Your task to perform on an android device: turn off notifications in google photos Image 0: 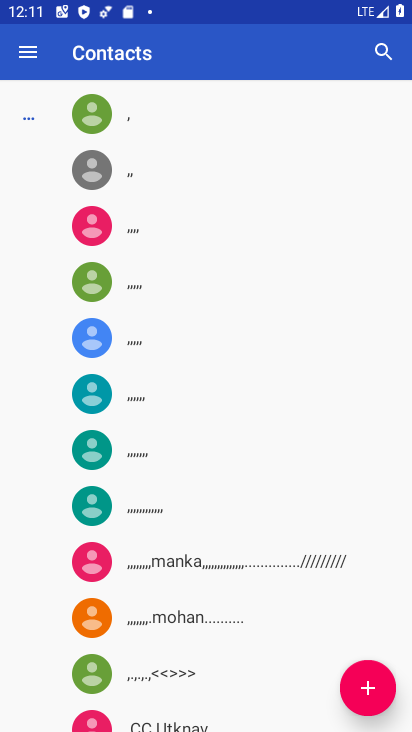
Step 0: press home button
Your task to perform on an android device: turn off notifications in google photos Image 1: 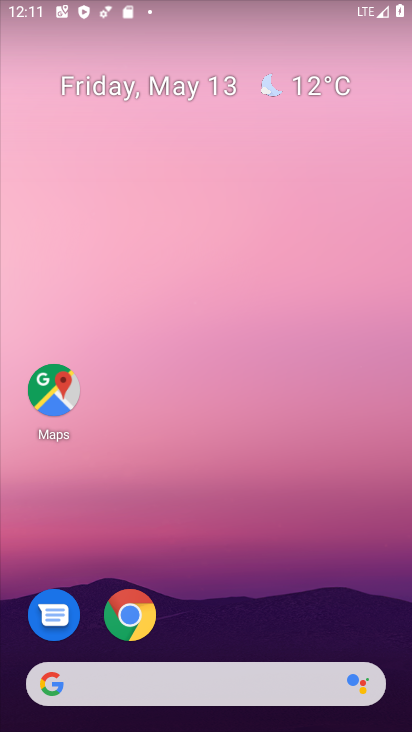
Step 1: drag from (220, 604) to (214, 162)
Your task to perform on an android device: turn off notifications in google photos Image 2: 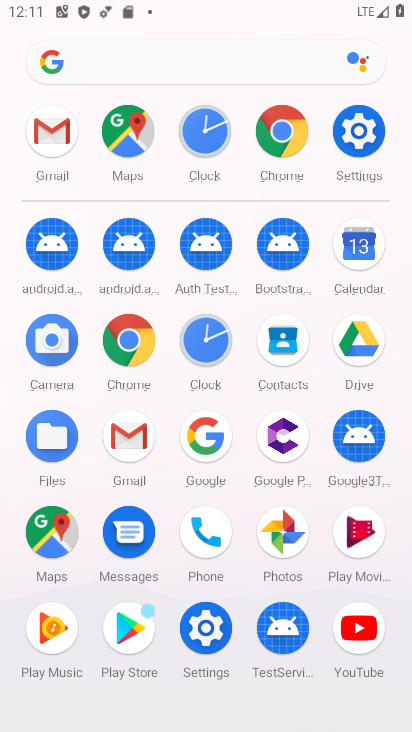
Step 2: click (288, 530)
Your task to perform on an android device: turn off notifications in google photos Image 3: 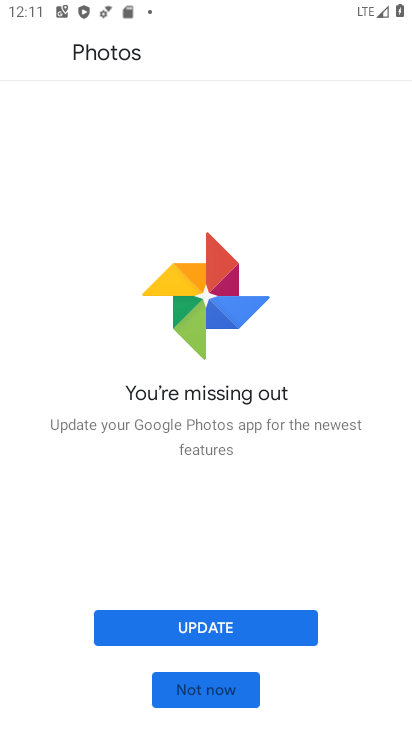
Step 3: click (219, 677)
Your task to perform on an android device: turn off notifications in google photos Image 4: 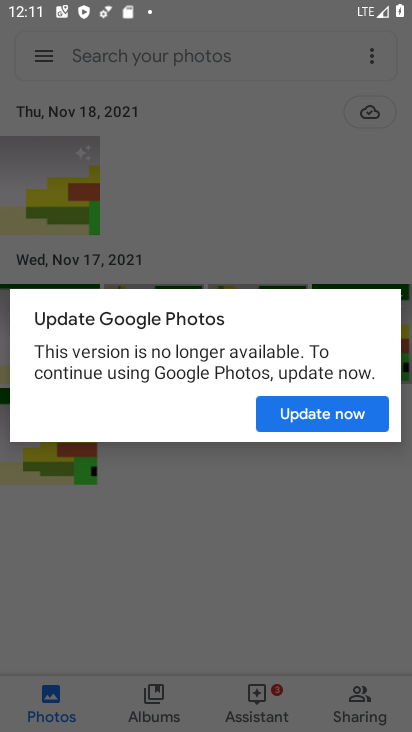
Step 4: click (273, 405)
Your task to perform on an android device: turn off notifications in google photos Image 5: 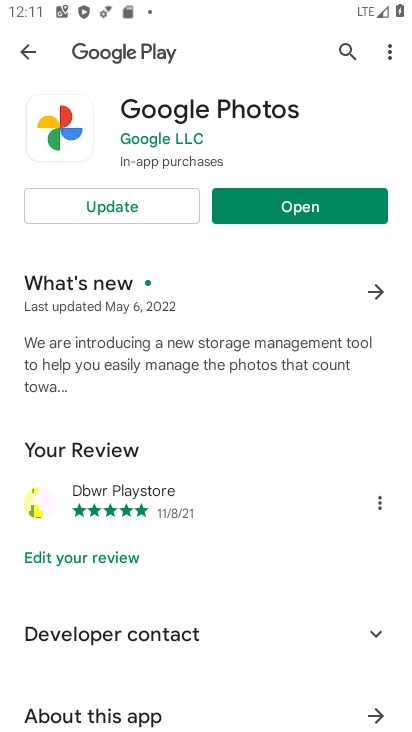
Step 5: click (228, 204)
Your task to perform on an android device: turn off notifications in google photos Image 6: 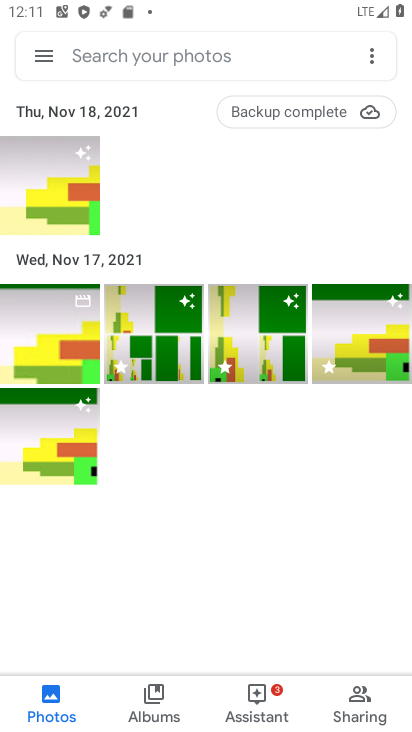
Step 6: click (40, 31)
Your task to perform on an android device: turn off notifications in google photos Image 7: 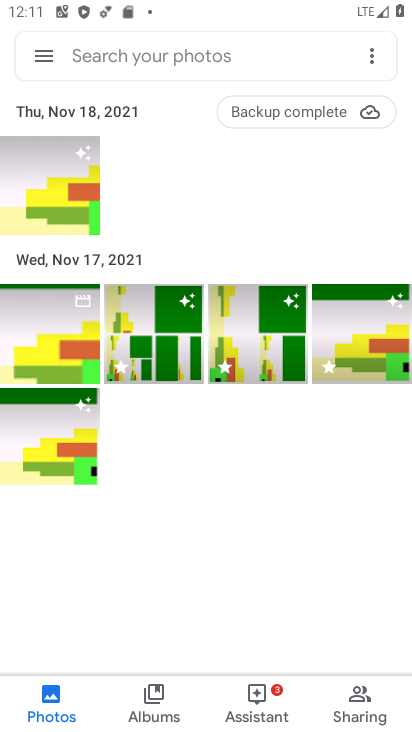
Step 7: click (43, 45)
Your task to perform on an android device: turn off notifications in google photos Image 8: 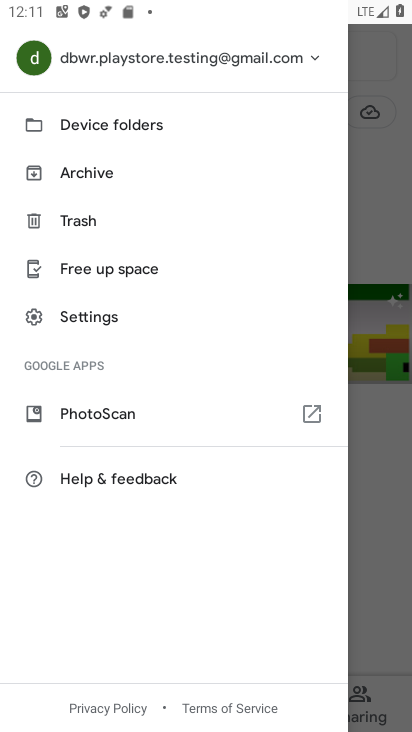
Step 8: click (114, 326)
Your task to perform on an android device: turn off notifications in google photos Image 9: 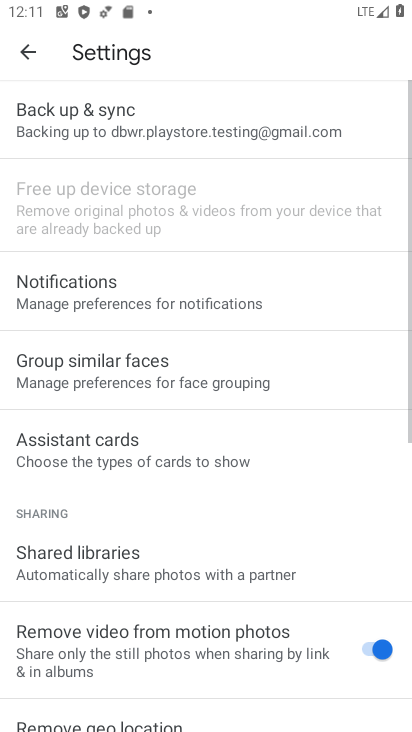
Step 9: drag from (159, 540) to (165, 365)
Your task to perform on an android device: turn off notifications in google photos Image 10: 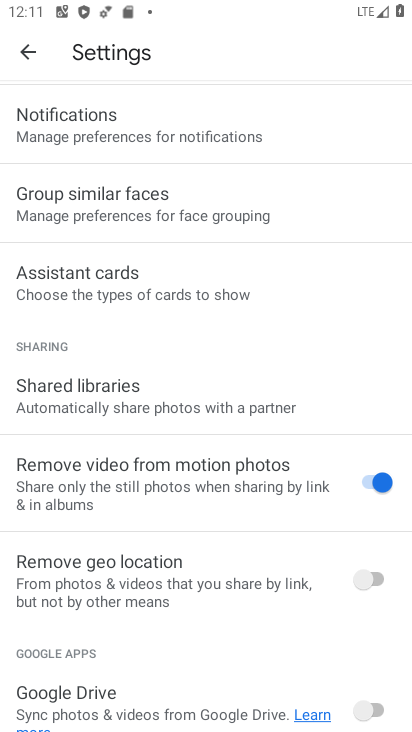
Step 10: click (150, 113)
Your task to perform on an android device: turn off notifications in google photos Image 11: 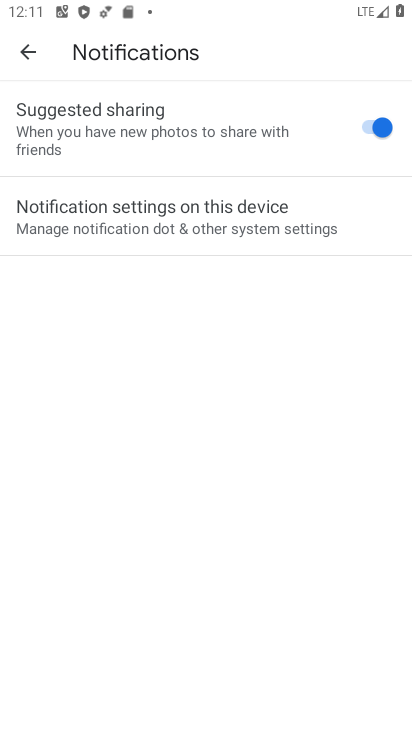
Step 11: click (202, 206)
Your task to perform on an android device: turn off notifications in google photos Image 12: 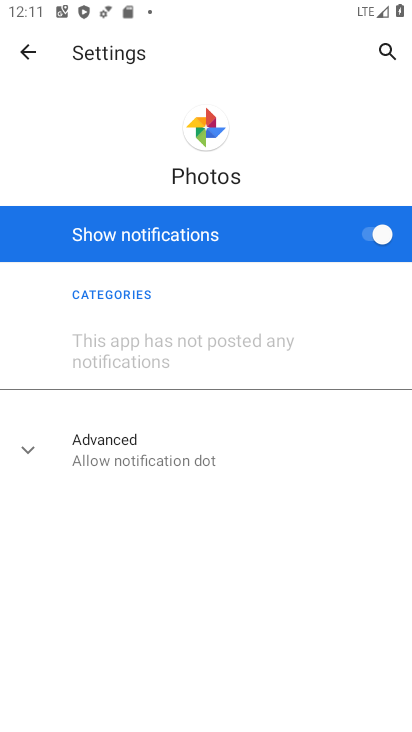
Step 12: click (359, 234)
Your task to perform on an android device: turn off notifications in google photos Image 13: 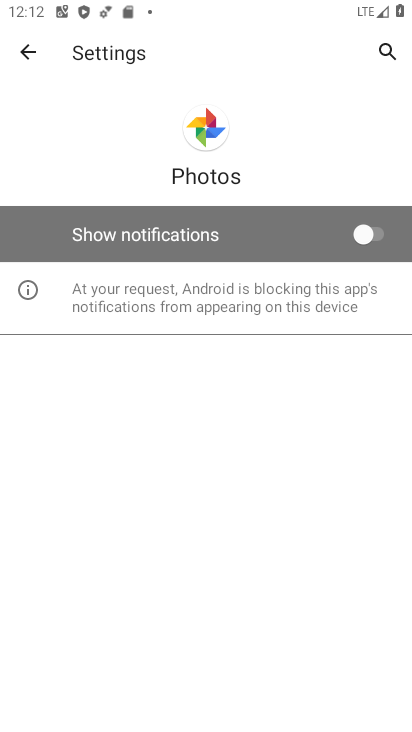
Step 13: task complete